Your task to perform on an android device: open a bookmark in the chrome app Image 0: 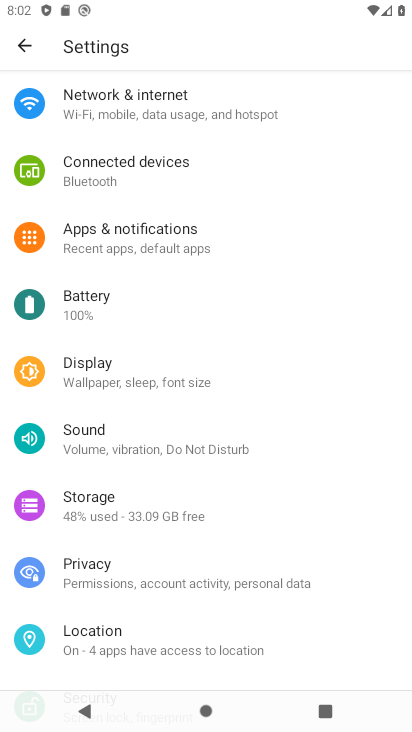
Step 0: press home button
Your task to perform on an android device: open a bookmark in the chrome app Image 1: 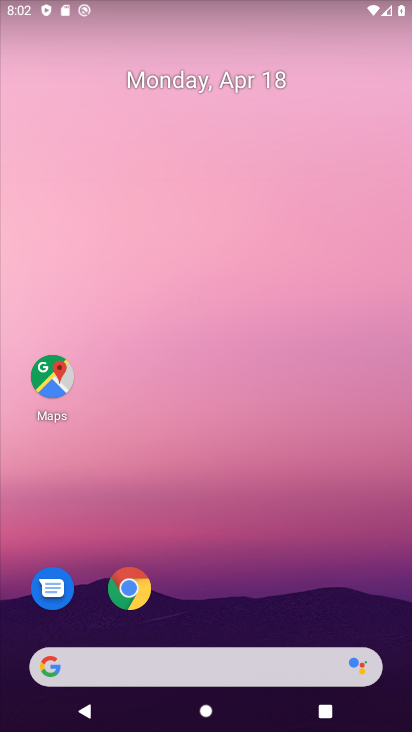
Step 1: click (136, 585)
Your task to perform on an android device: open a bookmark in the chrome app Image 2: 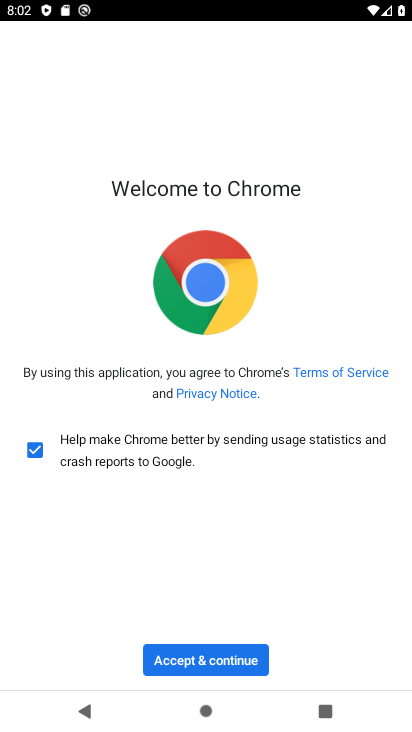
Step 2: click (223, 662)
Your task to perform on an android device: open a bookmark in the chrome app Image 3: 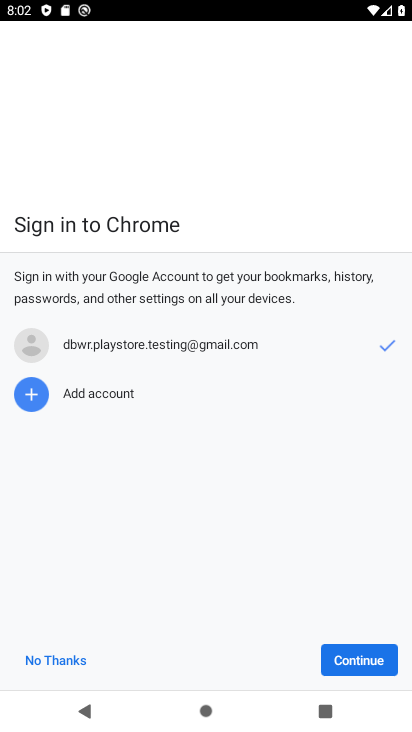
Step 3: click (367, 659)
Your task to perform on an android device: open a bookmark in the chrome app Image 4: 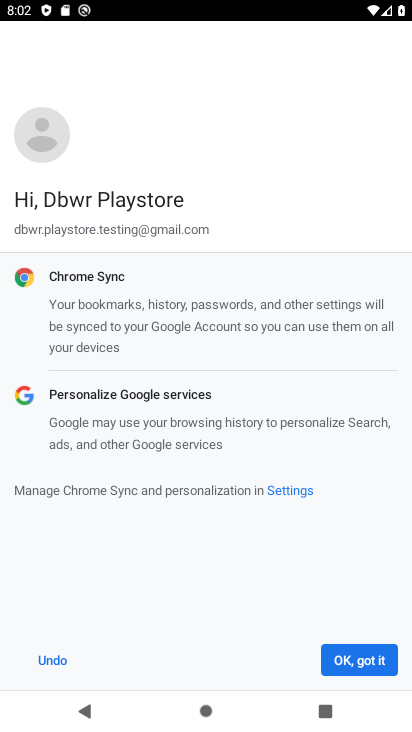
Step 4: click (354, 661)
Your task to perform on an android device: open a bookmark in the chrome app Image 5: 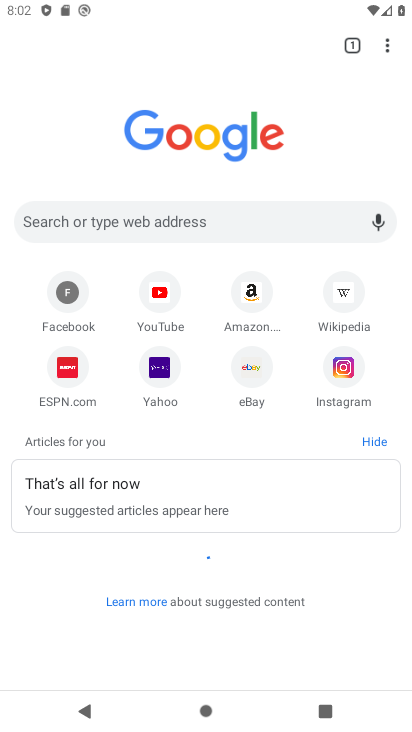
Step 5: click (383, 46)
Your task to perform on an android device: open a bookmark in the chrome app Image 6: 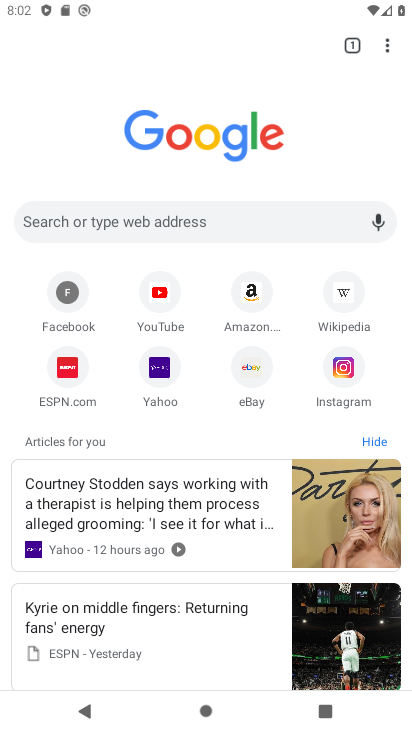
Step 6: click (386, 42)
Your task to perform on an android device: open a bookmark in the chrome app Image 7: 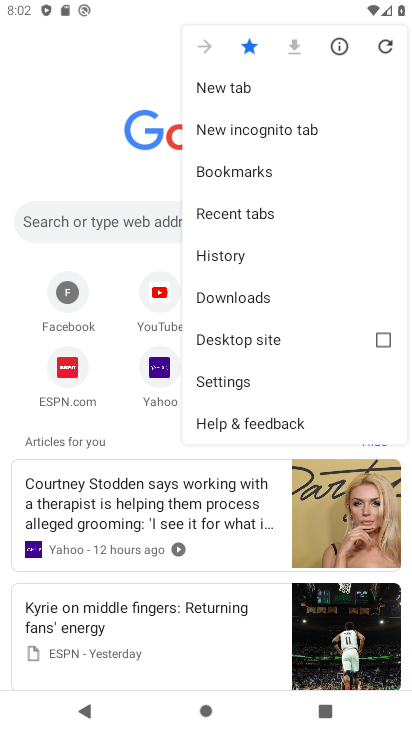
Step 7: click (252, 173)
Your task to perform on an android device: open a bookmark in the chrome app Image 8: 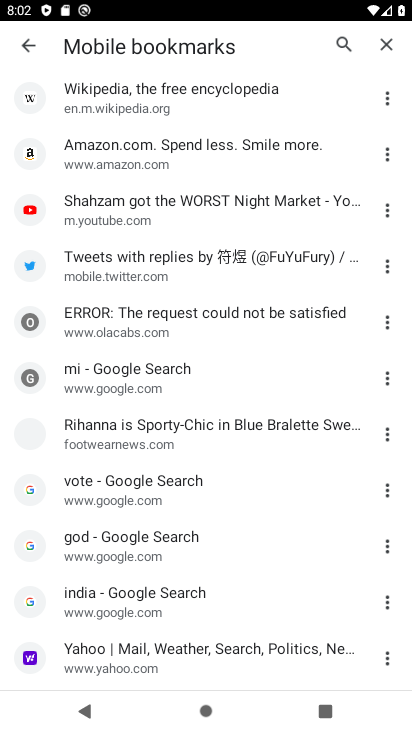
Step 8: task complete